Your task to perform on an android device: Search for the best-rated coffee table on Crate & Barrel Image 0: 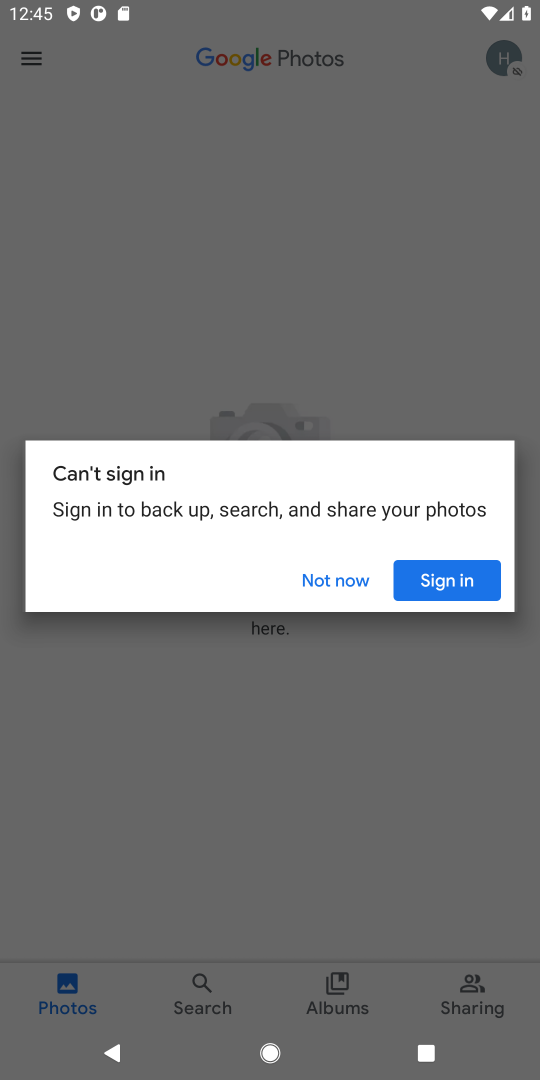
Step 0: click (335, 591)
Your task to perform on an android device: Search for the best-rated coffee table on Crate & Barrel Image 1: 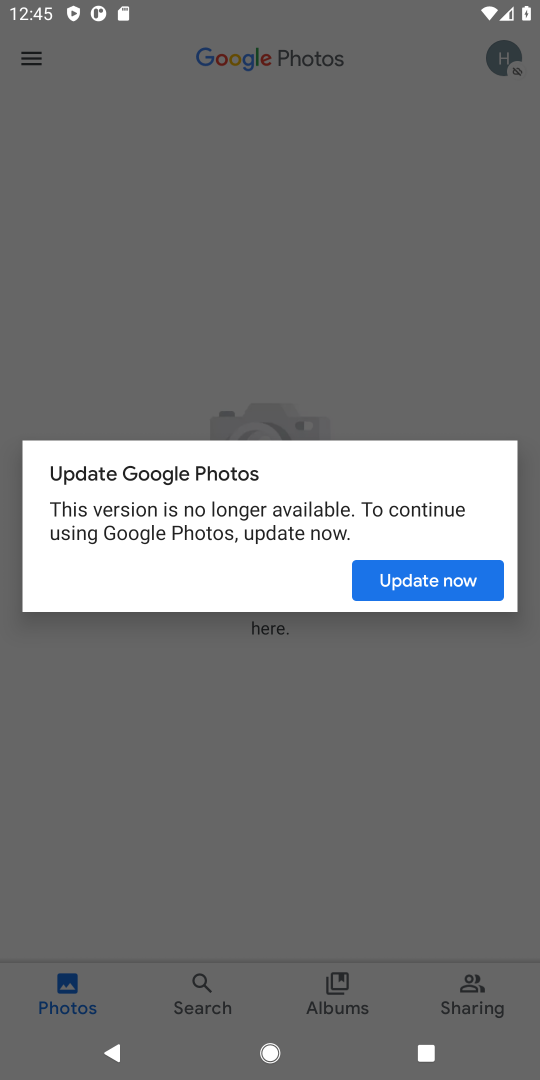
Step 1: press home button
Your task to perform on an android device: Search for the best-rated coffee table on Crate & Barrel Image 2: 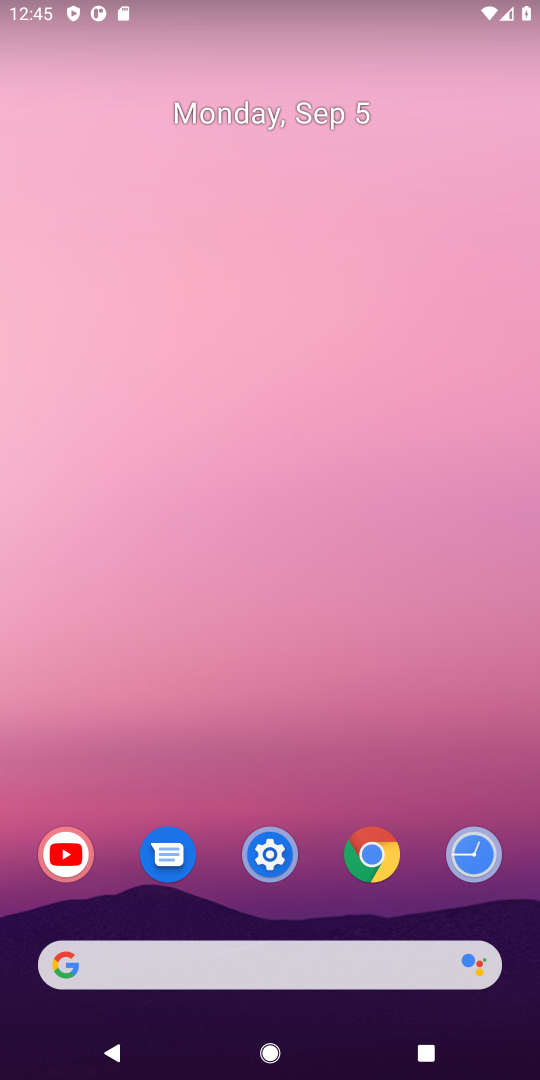
Step 2: click (285, 952)
Your task to perform on an android device: Search for the best-rated coffee table on Crate & Barrel Image 3: 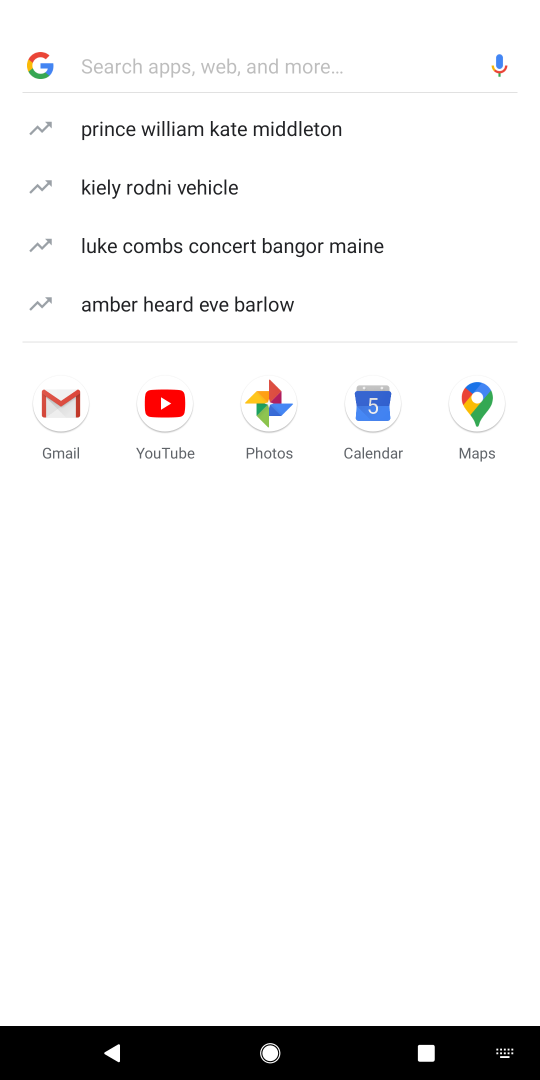
Step 3: type "Crate & Barrel"
Your task to perform on an android device: Search for the best-rated coffee table on Crate & Barrel Image 4: 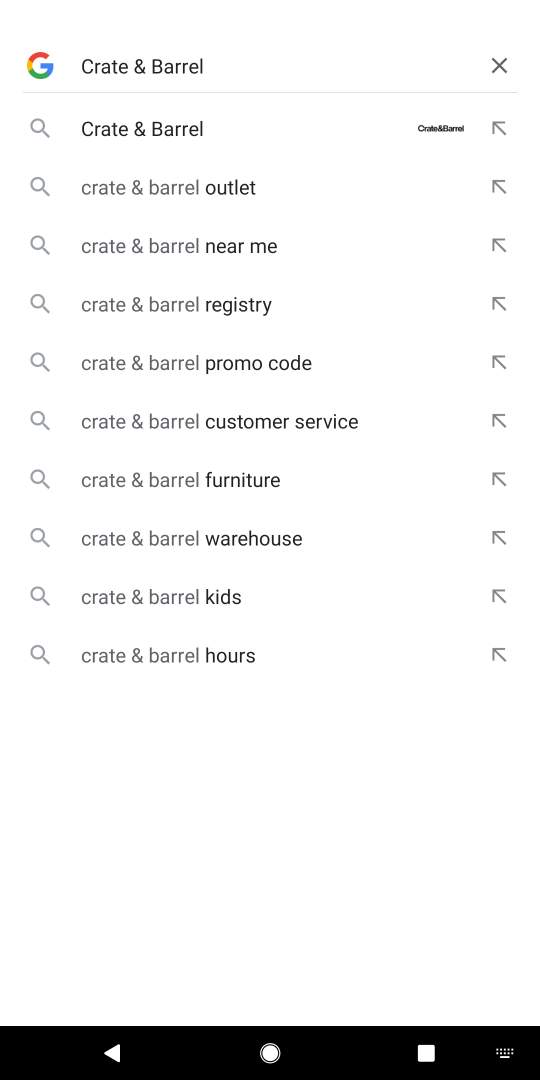
Step 4: click (194, 118)
Your task to perform on an android device: Search for the best-rated coffee table on Crate & Barrel Image 5: 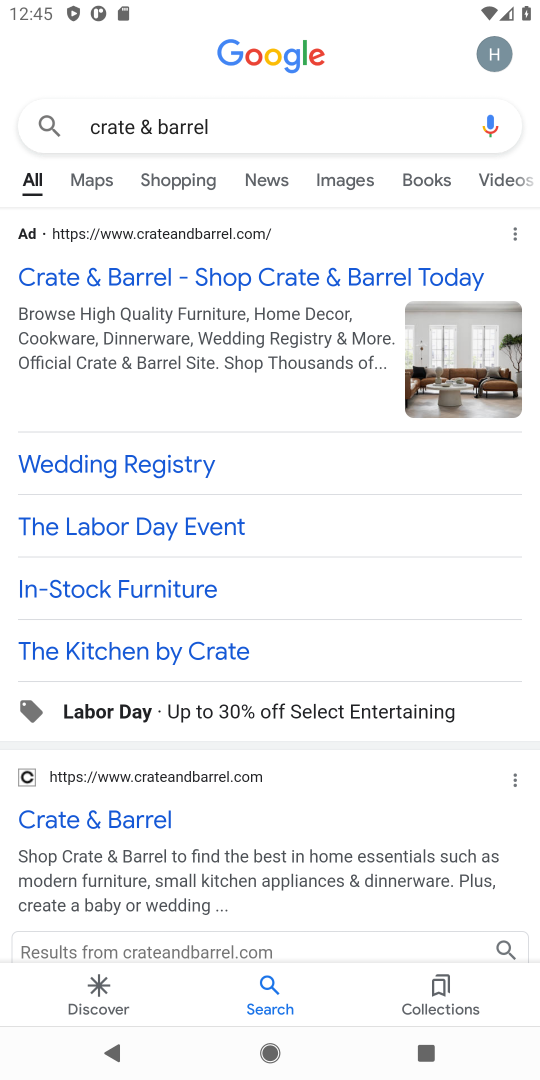
Step 5: drag from (301, 424) to (322, 317)
Your task to perform on an android device: Search for the best-rated coffee table on Crate & Barrel Image 6: 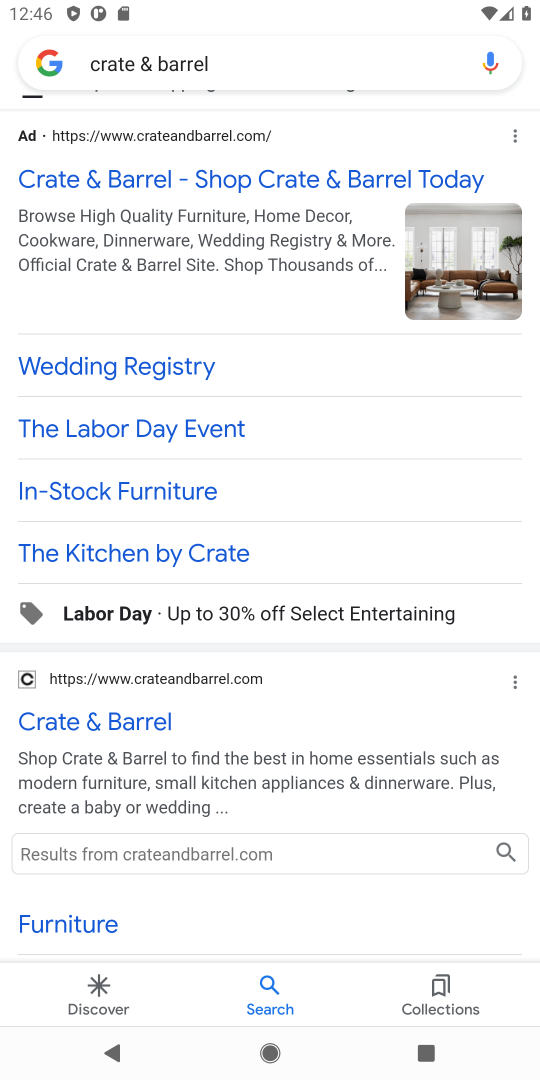
Step 6: click (147, 724)
Your task to perform on an android device: Search for the best-rated coffee table on Crate & Barrel Image 7: 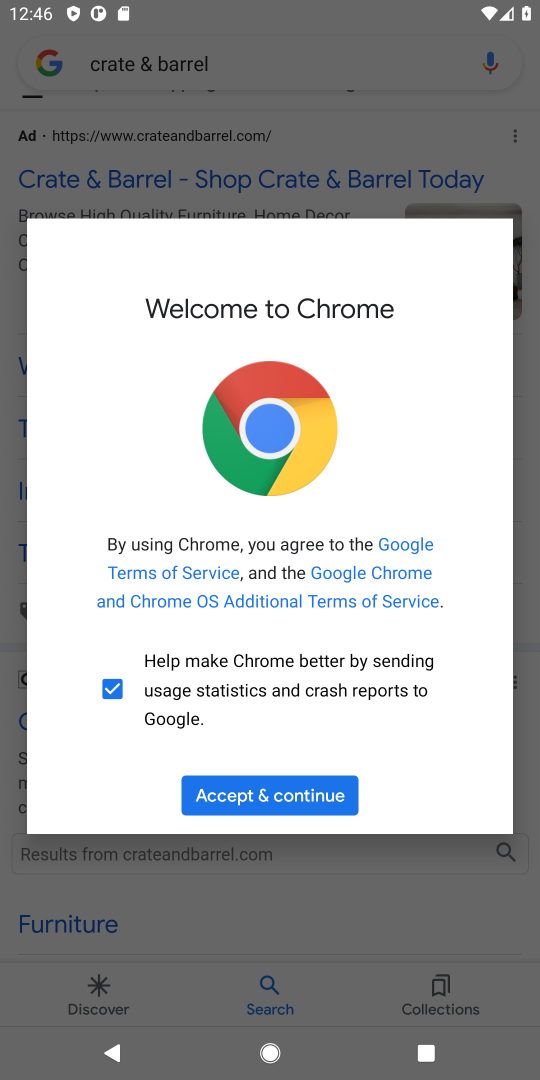
Step 7: click (205, 779)
Your task to perform on an android device: Search for the best-rated coffee table on Crate & Barrel Image 8: 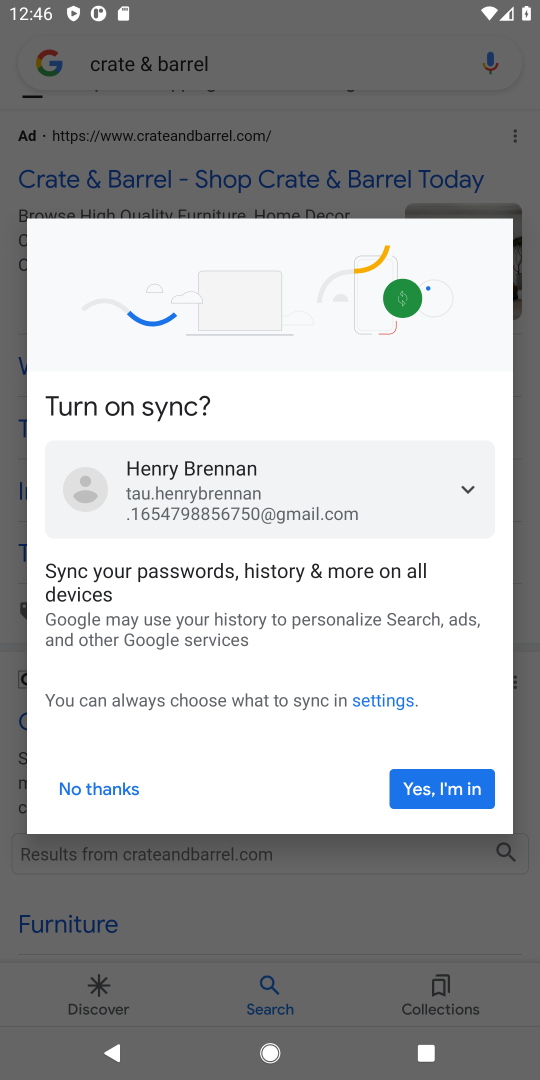
Step 8: click (123, 785)
Your task to perform on an android device: Search for the best-rated coffee table on Crate & Barrel Image 9: 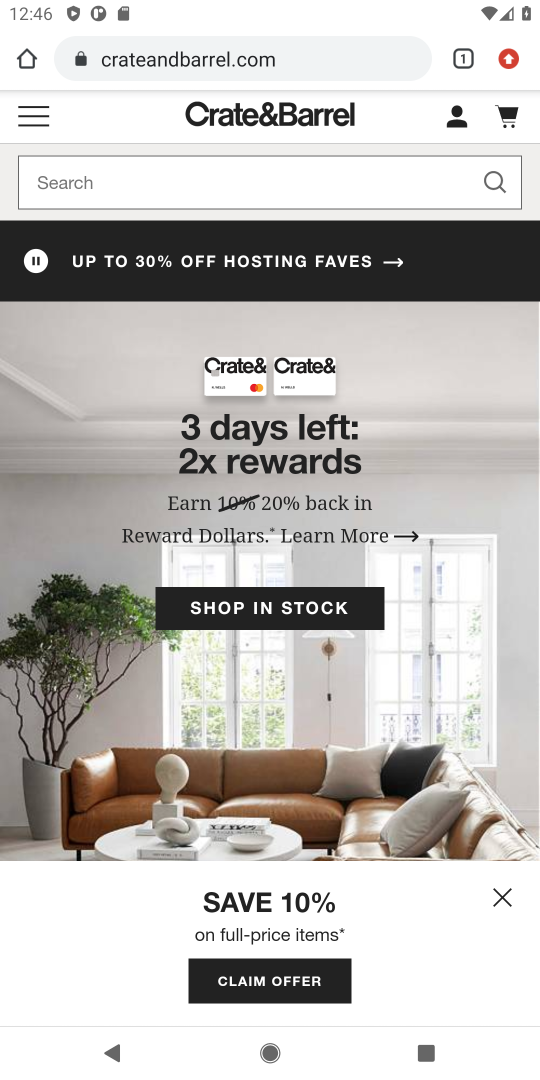
Step 9: click (265, 196)
Your task to perform on an android device: Search for the best-rated coffee table on Crate & Barrel Image 10: 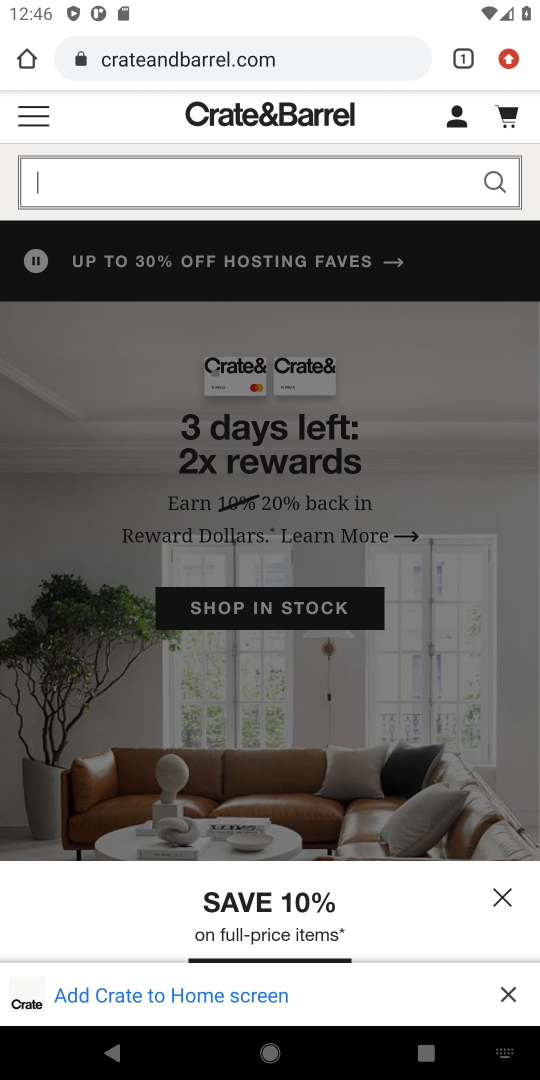
Step 10: type "coffee table"
Your task to perform on an android device: Search for the best-rated coffee table on Crate & Barrel Image 11: 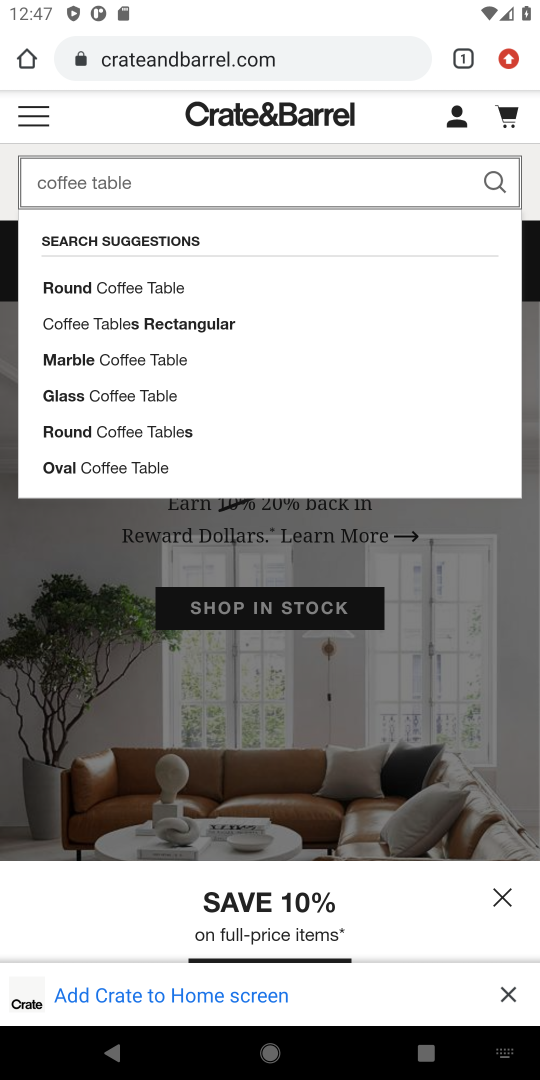
Step 11: click (489, 183)
Your task to perform on an android device: Search for the best-rated coffee table on Crate & Barrel Image 12: 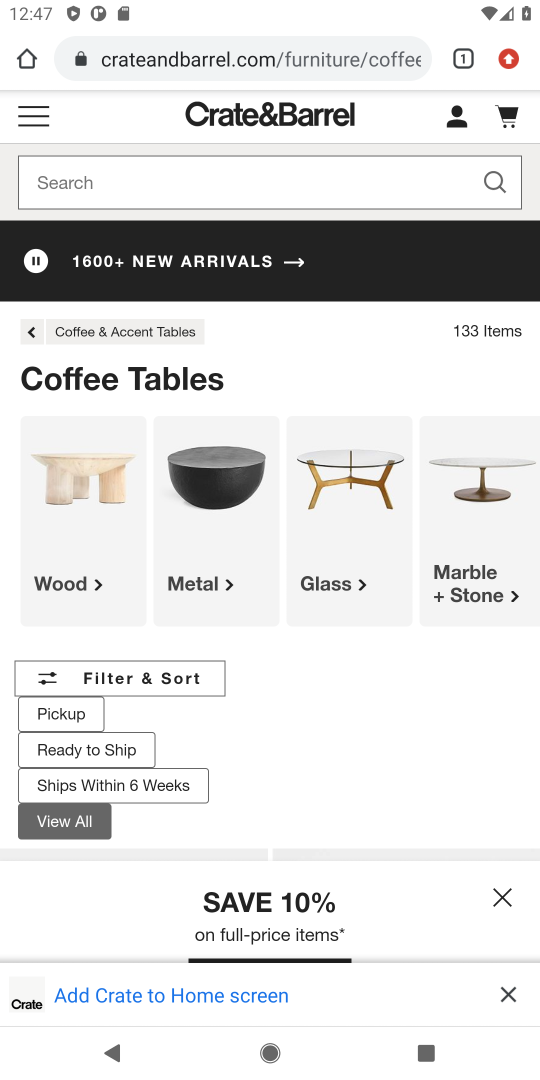
Step 12: task complete